Your task to perform on an android device: turn off translation in the chrome app Image 0: 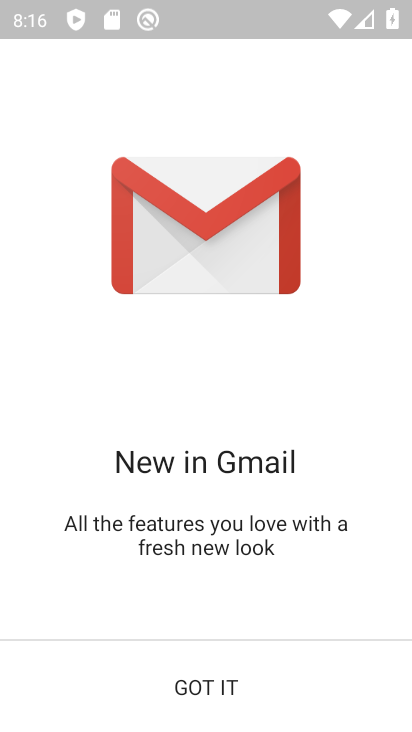
Step 0: press home button
Your task to perform on an android device: turn off translation in the chrome app Image 1: 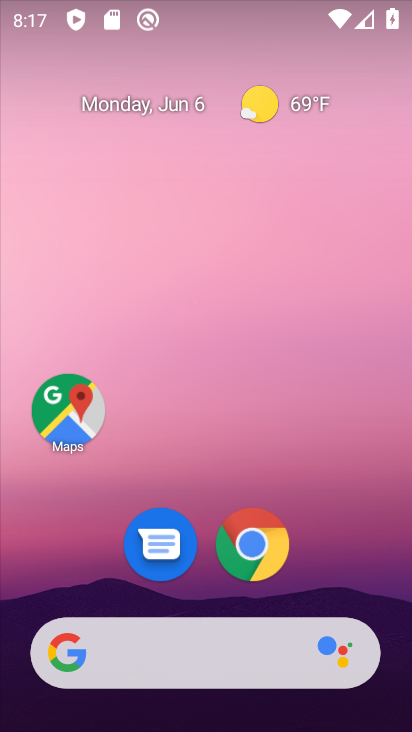
Step 1: drag from (223, 608) to (289, 175)
Your task to perform on an android device: turn off translation in the chrome app Image 2: 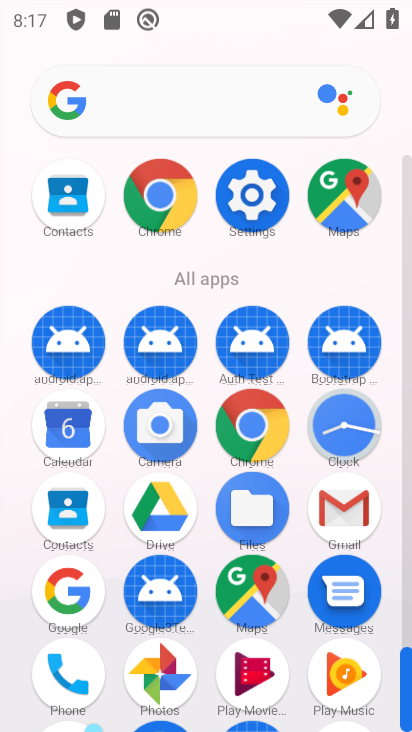
Step 2: click (153, 201)
Your task to perform on an android device: turn off translation in the chrome app Image 3: 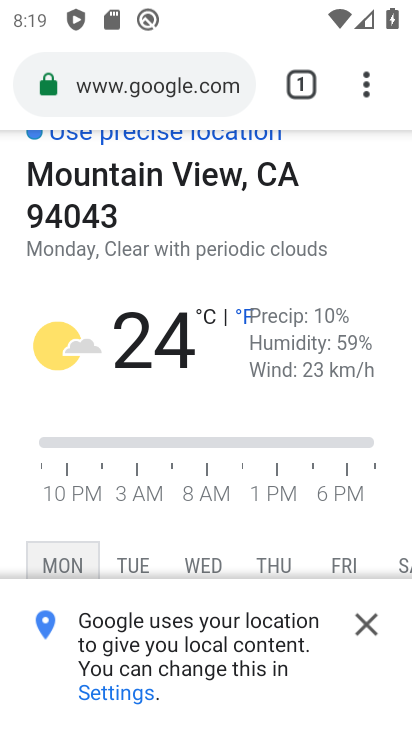
Step 3: click (363, 84)
Your task to perform on an android device: turn off translation in the chrome app Image 4: 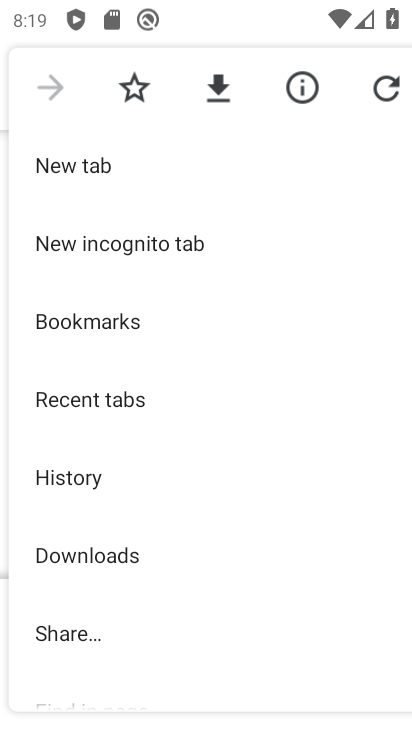
Step 4: drag from (143, 581) to (173, 174)
Your task to perform on an android device: turn off translation in the chrome app Image 5: 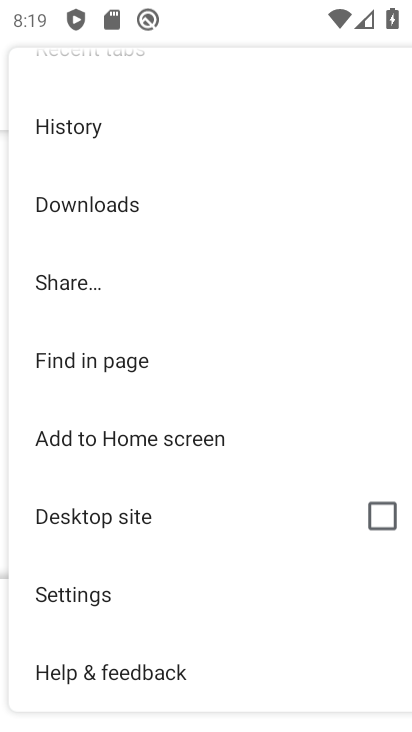
Step 5: drag from (168, 560) to (182, 176)
Your task to perform on an android device: turn off translation in the chrome app Image 6: 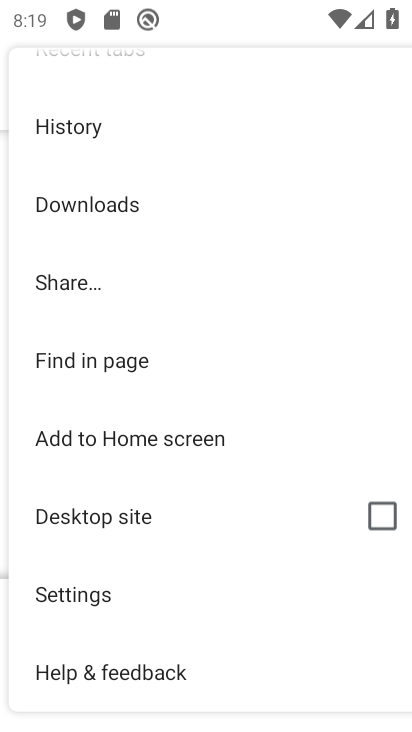
Step 6: click (95, 598)
Your task to perform on an android device: turn off translation in the chrome app Image 7: 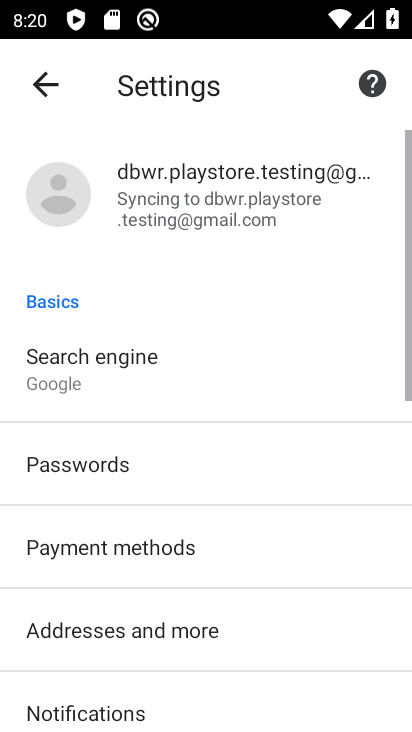
Step 7: drag from (172, 604) to (208, 213)
Your task to perform on an android device: turn off translation in the chrome app Image 8: 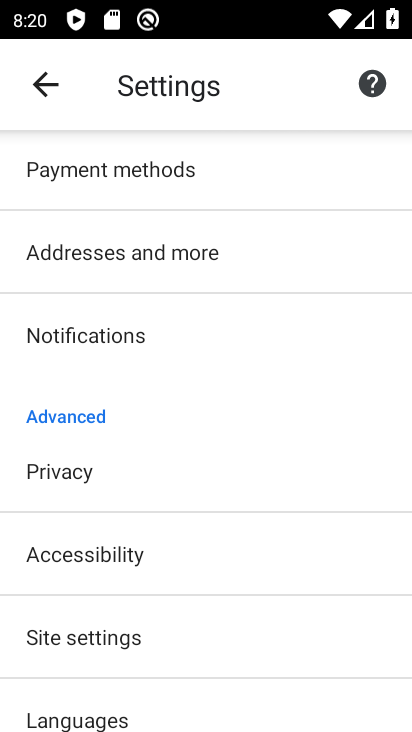
Step 8: drag from (90, 579) to (134, 201)
Your task to perform on an android device: turn off translation in the chrome app Image 9: 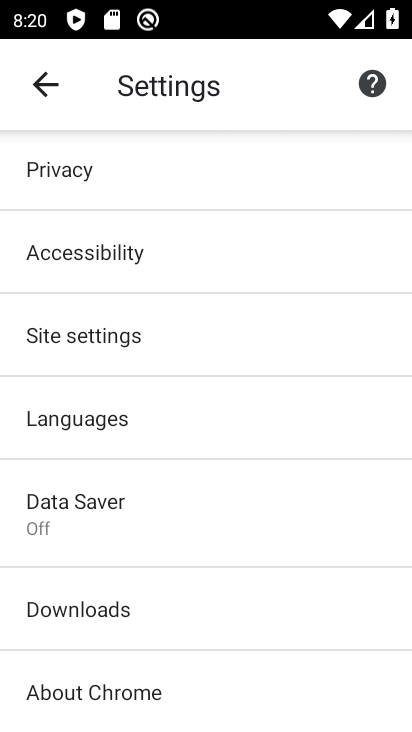
Step 9: click (93, 423)
Your task to perform on an android device: turn off translation in the chrome app Image 10: 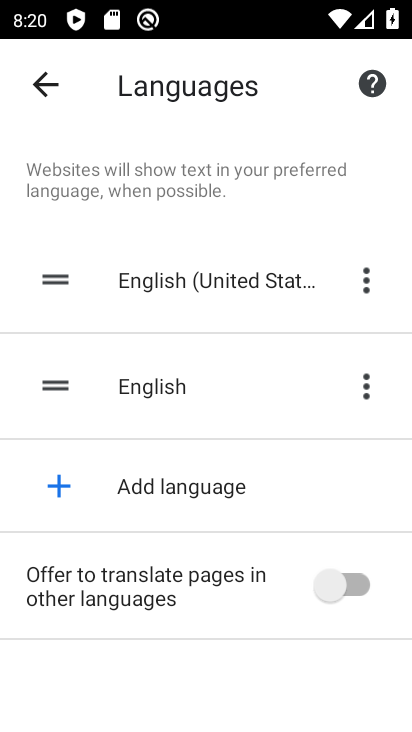
Step 10: task complete